Your task to perform on an android device: open chrome privacy settings Image 0: 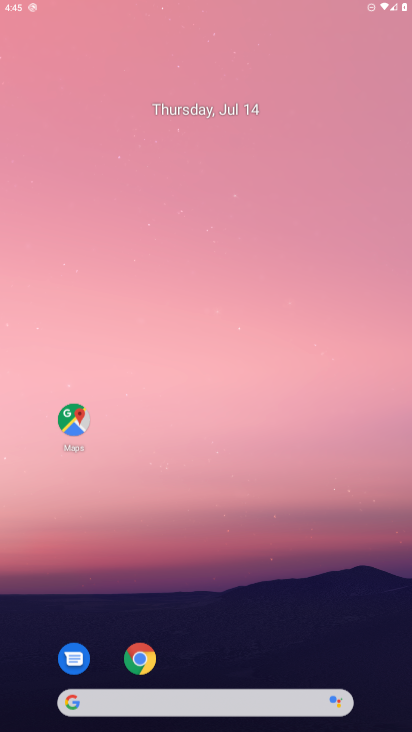
Step 0: press home button
Your task to perform on an android device: open chrome privacy settings Image 1: 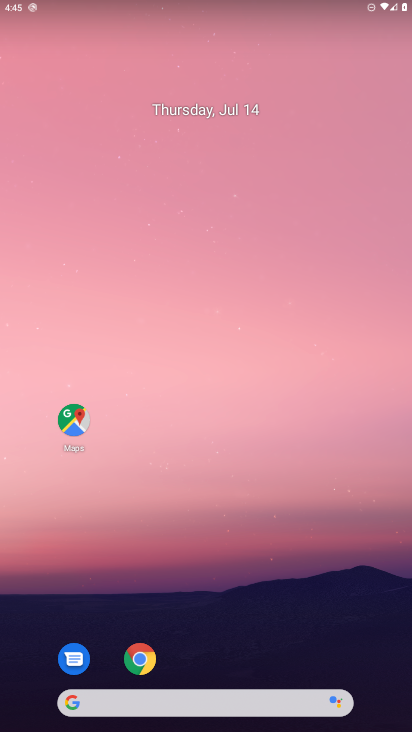
Step 1: drag from (215, 506) to (241, 167)
Your task to perform on an android device: open chrome privacy settings Image 2: 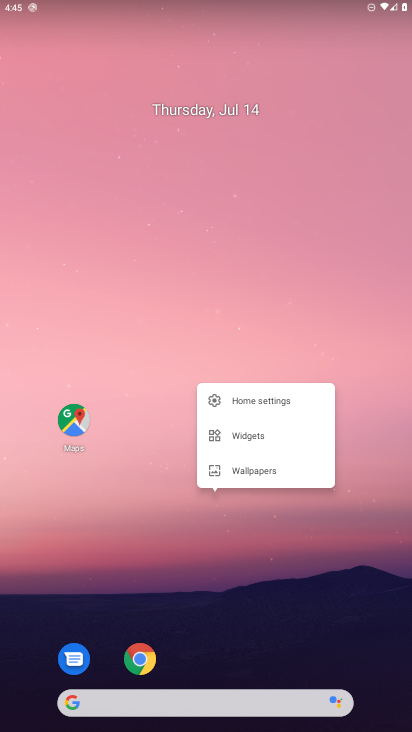
Step 2: click (165, 531)
Your task to perform on an android device: open chrome privacy settings Image 3: 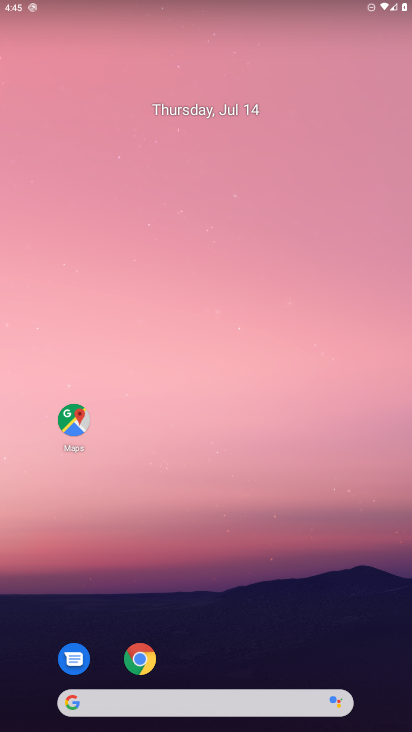
Step 3: drag from (216, 677) to (226, 38)
Your task to perform on an android device: open chrome privacy settings Image 4: 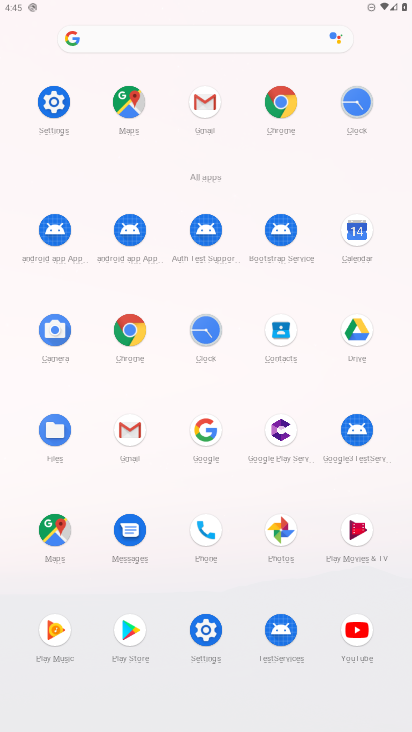
Step 4: click (201, 626)
Your task to perform on an android device: open chrome privacy settings Image 5: 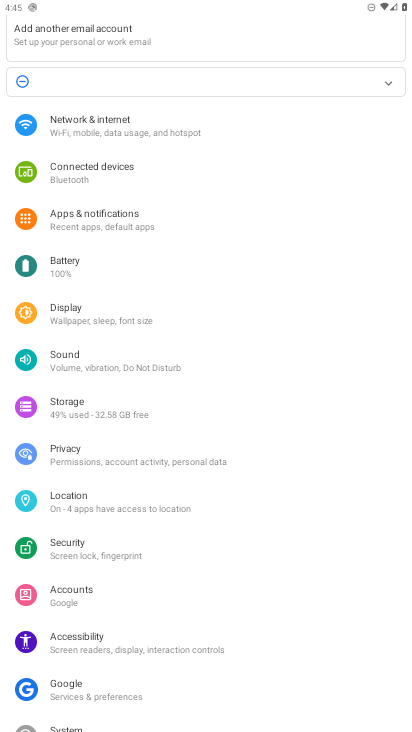
Step 5: click (82, 447)
Your task to perform on an android device: open chrome privacy settings Image 6: 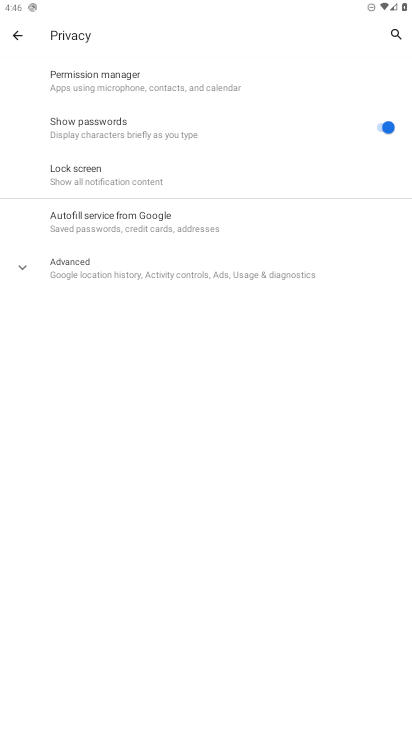
Step 6: click (28, 267)
Your task to perform on an android device: open chrome privacy settings Image 7: 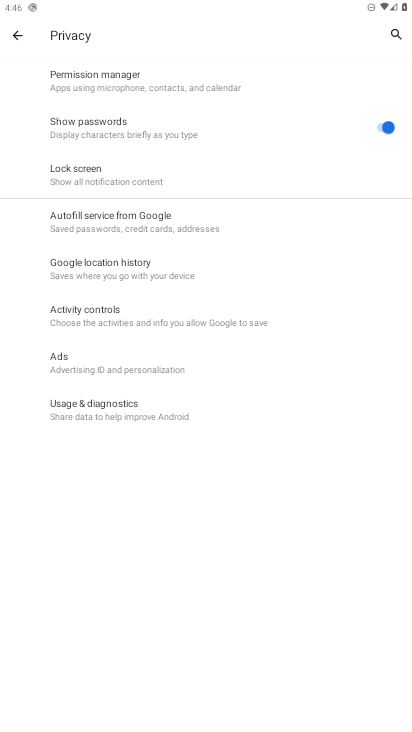
Step 7: task complete